Your task to perform on an android device: Go to location settings Image 0: 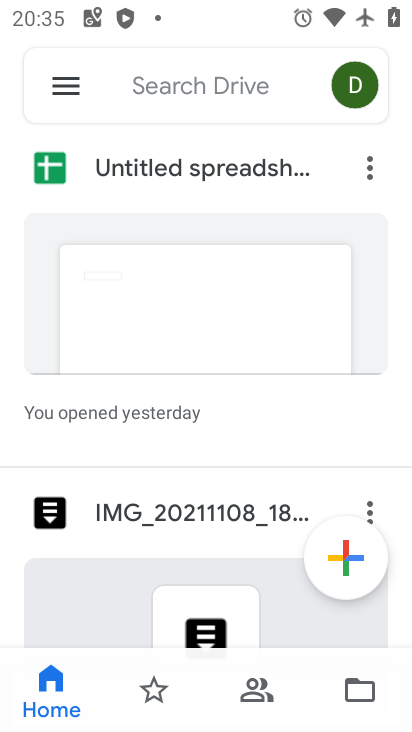
Step 0: press home button
Your task to perform on an android device: Go to location settings Image 1: 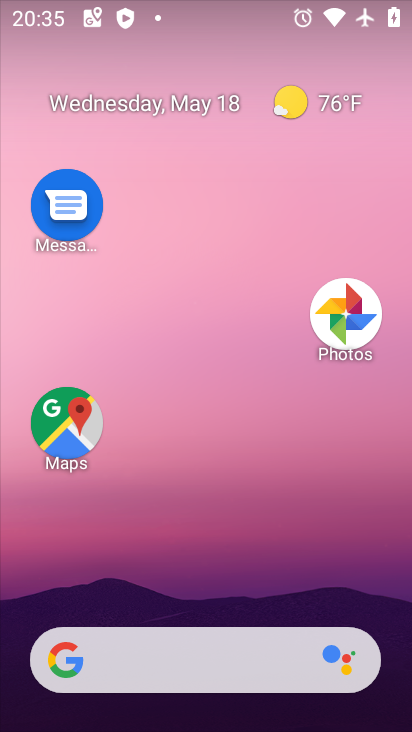
Step 1: drag from (180, 594) to (113, 12)
Your task to perform on an android device: Go to location settings Image 2: 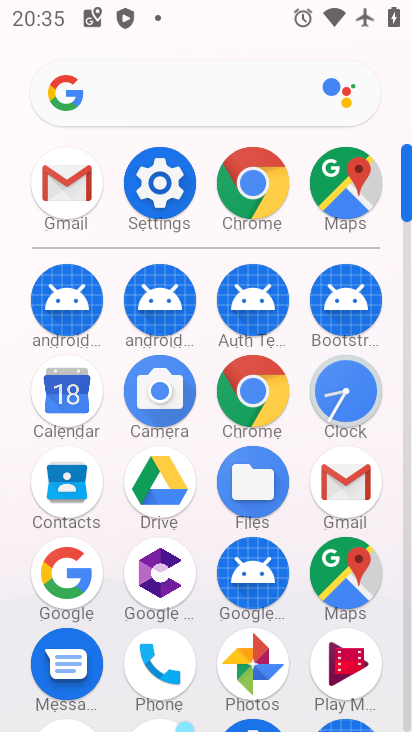
Step 2: click (180, 183)
Your task to perform on an android device: Go to location settings Image 3: 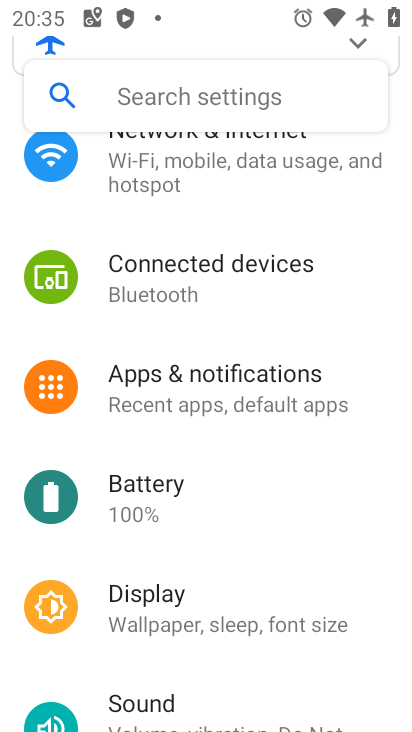
Step 3: drag from (261, 548) to (197, 84)
Your task to perform on an android device: Go to location settings Image 4: 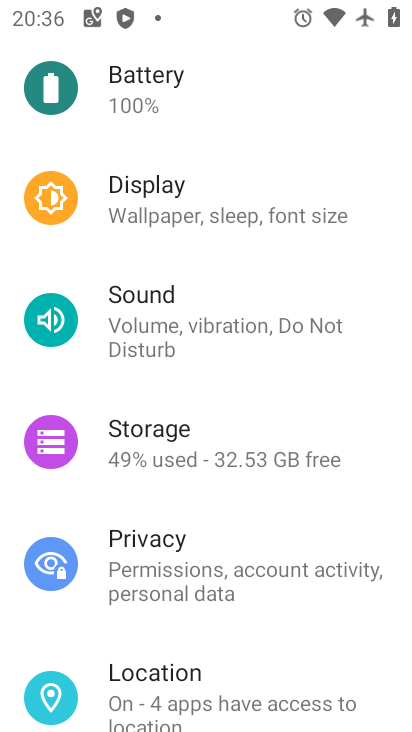
Step 4: click (183, 686)
Your task to perform on an android device: Go to location settings Image 5: 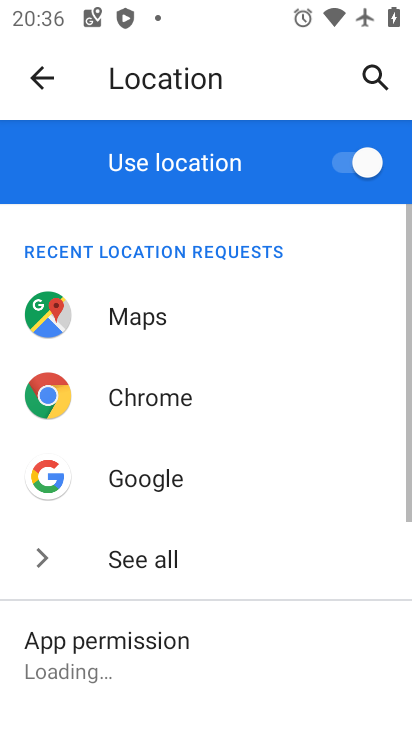
Step 5: drag from (175, 663) to (105, 115)
Your task to perform on an android device: Go to location settings Image 6: 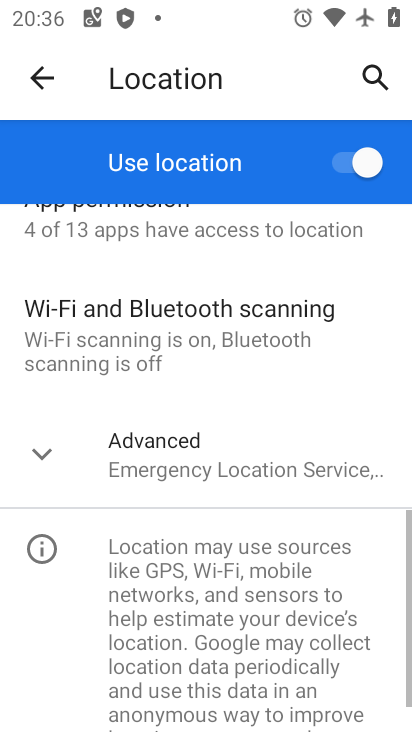
Step 6: click (236, 443)
Your task to perform on an android device: Go to location settings Image 7: 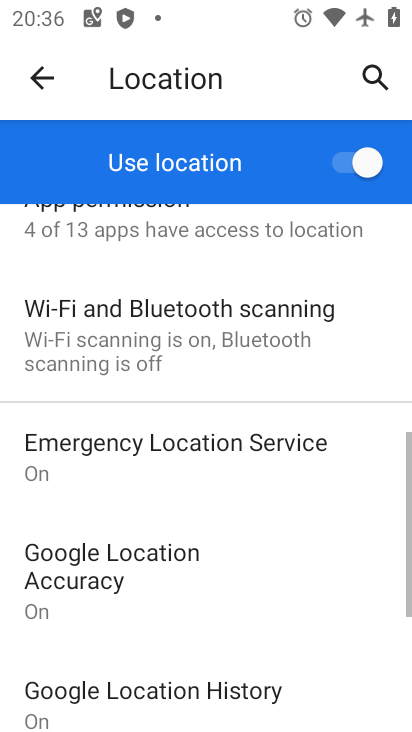
Step 7: task complete